Your task to perform on an android device: turn vacation reply on in the gmail app Image 0: 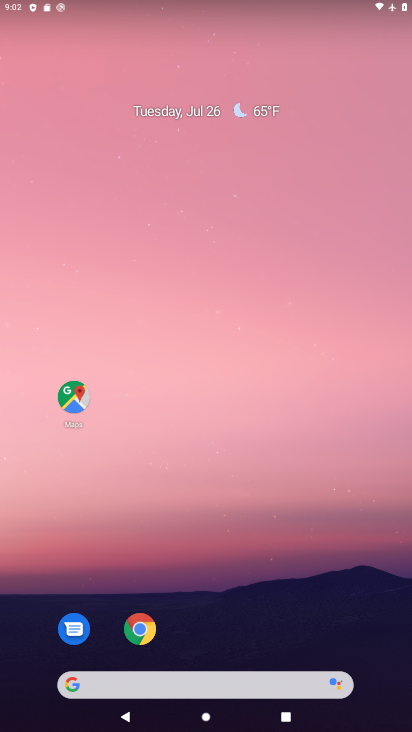
Step 0: drag from (339, 612) to (284, 78)
Your task to perform on an android device: turn vacation reply on in the gmail app Image 1: 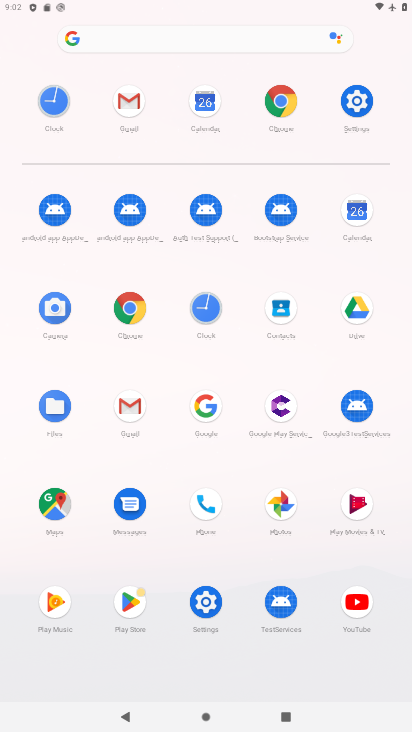
Step 1: click (136, 105)
Your task to perform on an android device: turn vacation reply on in the gmail app Image 2: 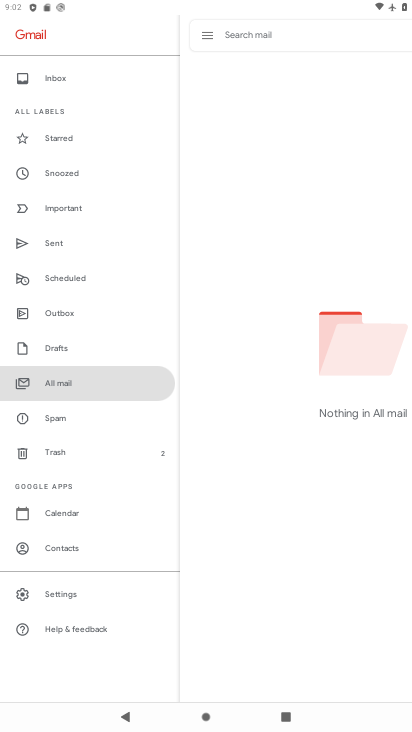
Step 2: click (54, 598)
Your task to perform on an android device: turn vacation reply on in the gmail app Image 3: 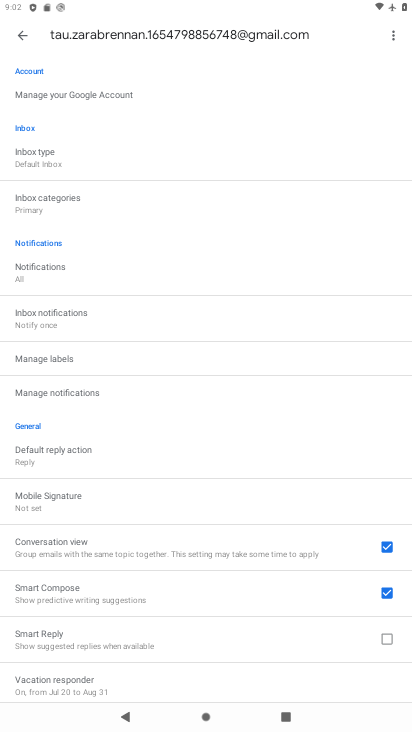
Step 3: click (129, 673)
Your task to perform on an android device: turn vacation reply on in the gmail app Image 4: 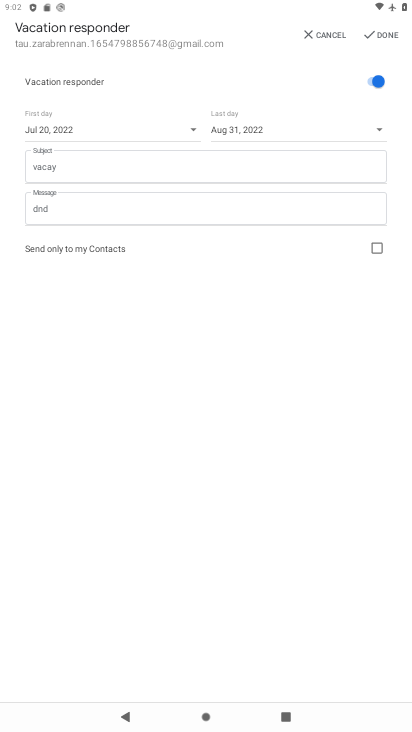
Step 4: task complete